Your task to perform on an android device: turn on airplane mode Image 0: 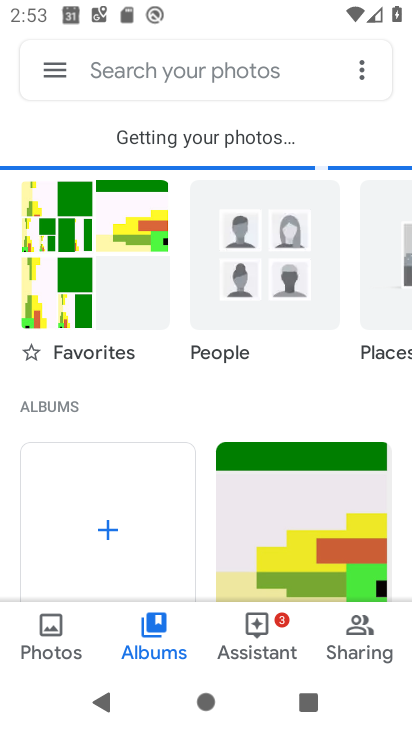
Step 0: press home button
Your task to perform on an android device: turn on airplane mode Image 1: 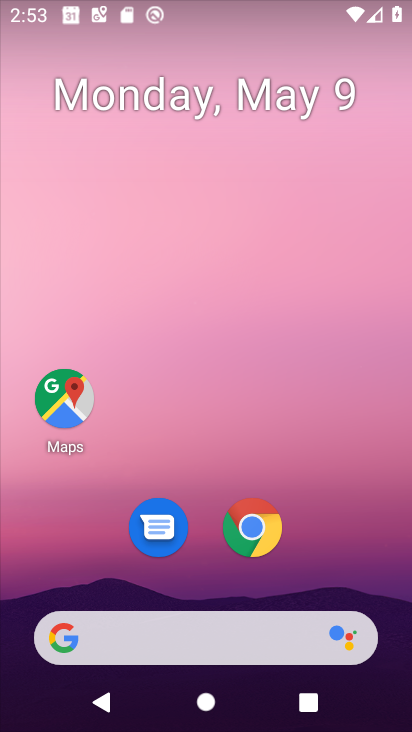
Step 1: drag from (296, 478) to (309, 149)
Your task to perform on an android device: turn on airplane mode Image 2: 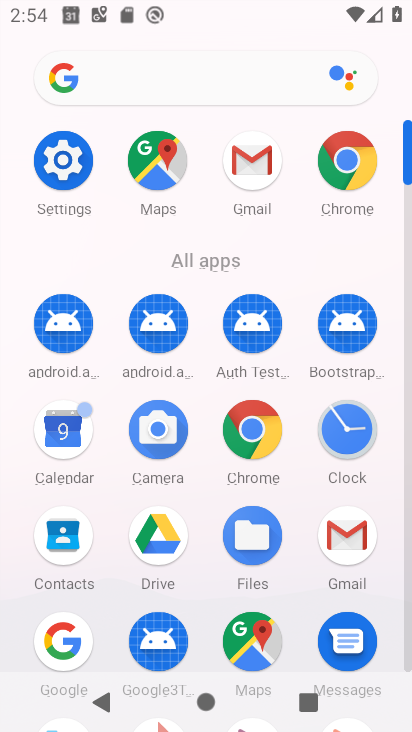
Step 2: click (59, 172)
Your task to perform on an android device: turn on airplane mode Image 3: 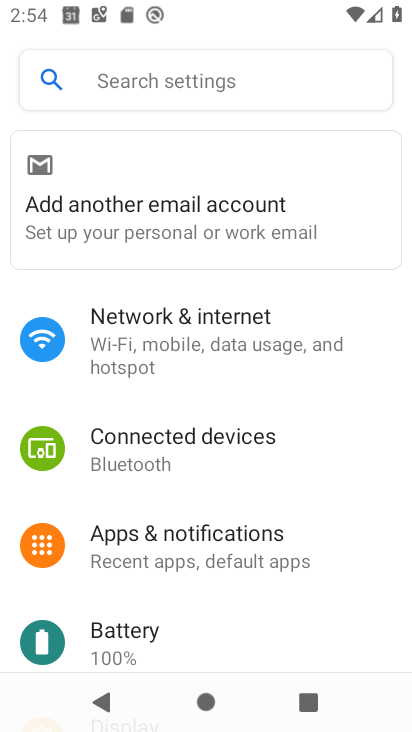
Step 3: drag from (186, 546) to (211, 402)
Your task to perform on an android device: turn on airplane mode Image 4: 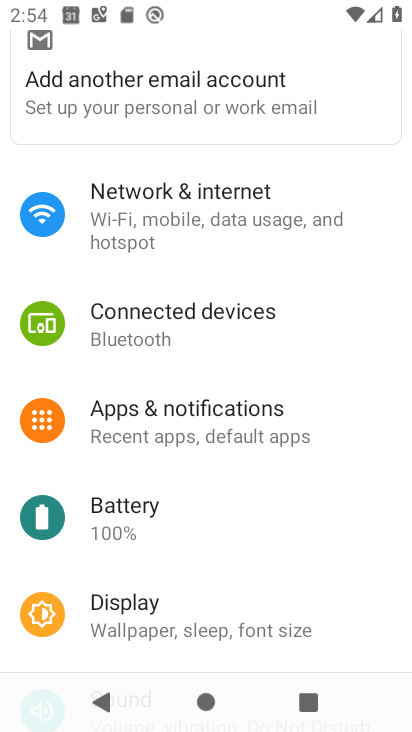
Step 4: click (258, 204)
Your task to perform on an android device: turn on airplane mode Image 5: 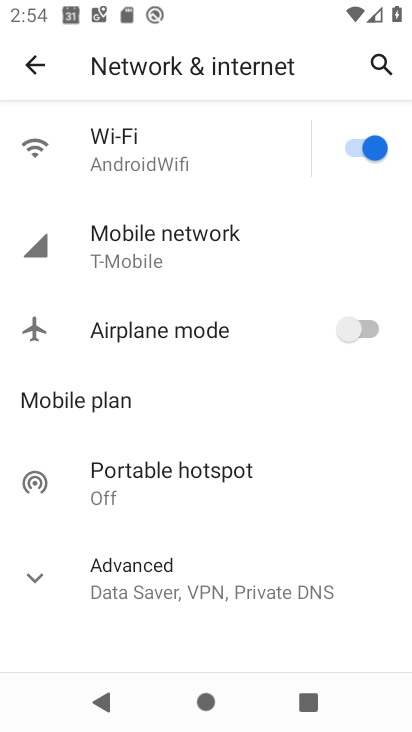
Step 5: click (318, 344)
Your task to perform on an android device: turn on airplane mode Image 6: 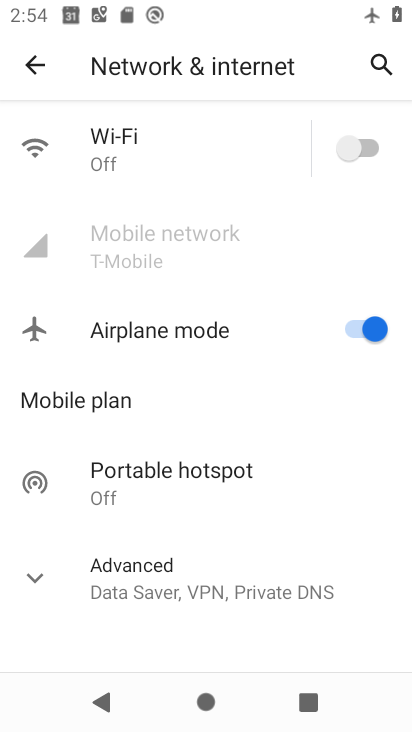
Step 6: task complete